Your task to perform on an android device: Go to network settings Image 0: 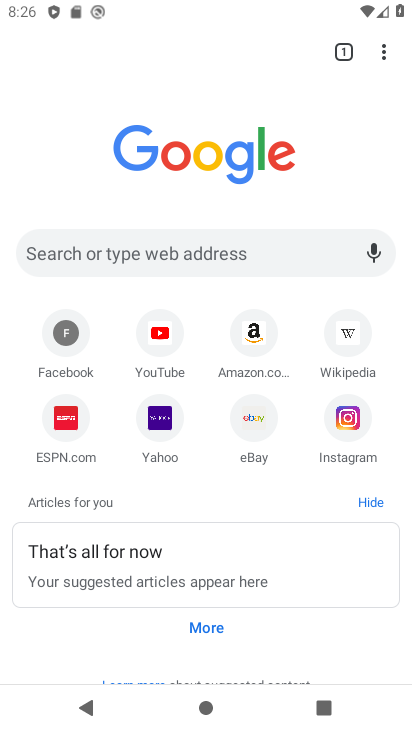
Step 0: press home button
Your task to perform on an android device: Go to network settings Image 1: 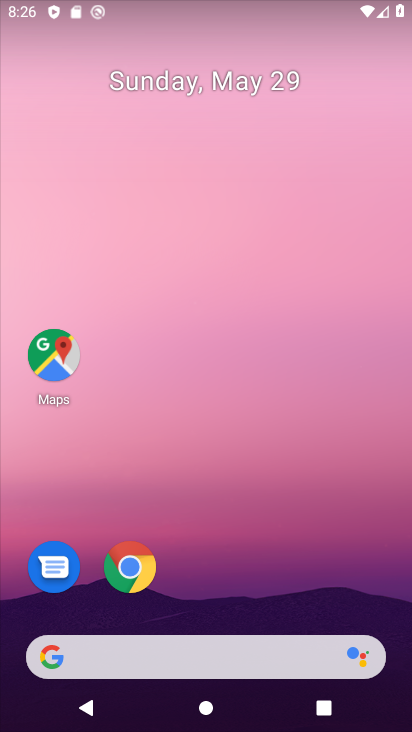
Step 1: drag from (366, 598) to (299, 130)
Your task to perform on an android device: Go to network settings Image 2: 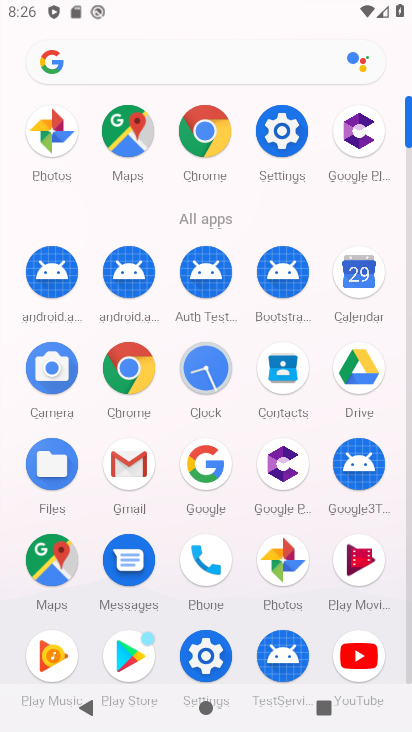
Step 2: click (207, 658)
Your task to perform on an android device: Go to network settings Image 3: 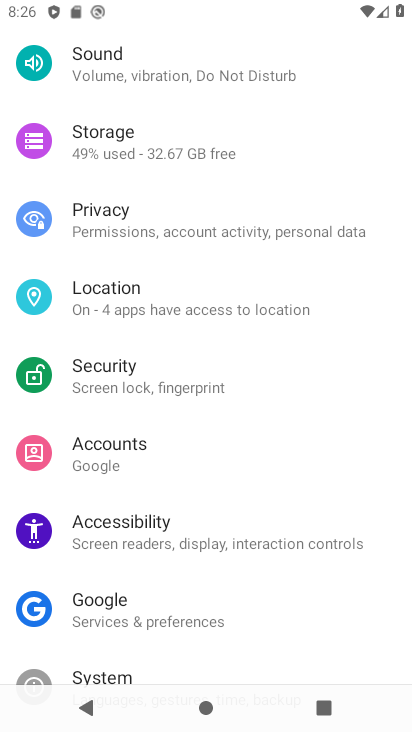
Step 3: drag from (225, 259) to (212, 465)
Your task to perform on an android device: Go to network settings Image 4: 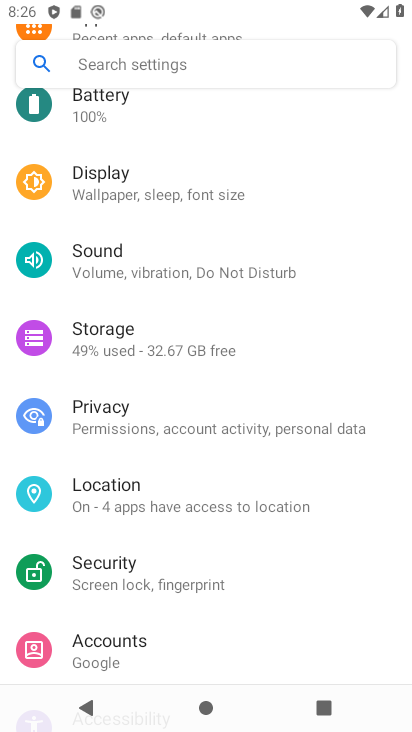
Step 4: drag from (277, 85) to (261, 229)
Your task to perform on an android device: Go to network settings Image 5: 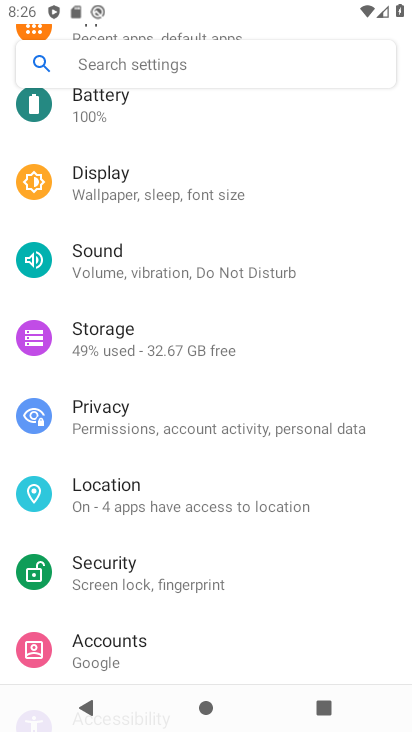
Step 5: drag from (218, 273) to (213, 326)
Your task to perform on an android device: Go to network settings Image 6: 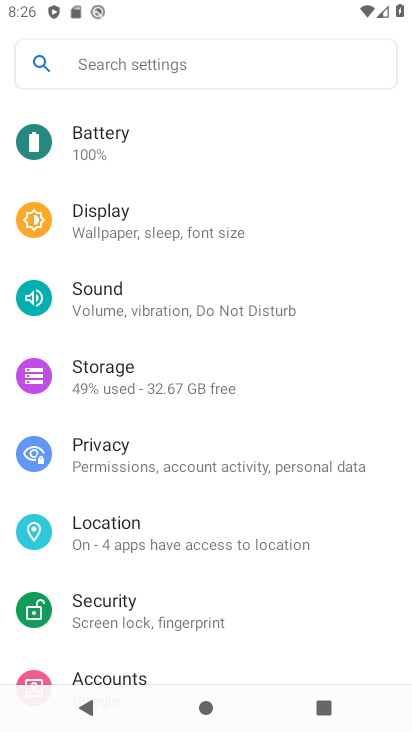
Step 6: drag from (316, 171) to (291, 417)
Your task to perform on an android device: Go to network settings Image 7: 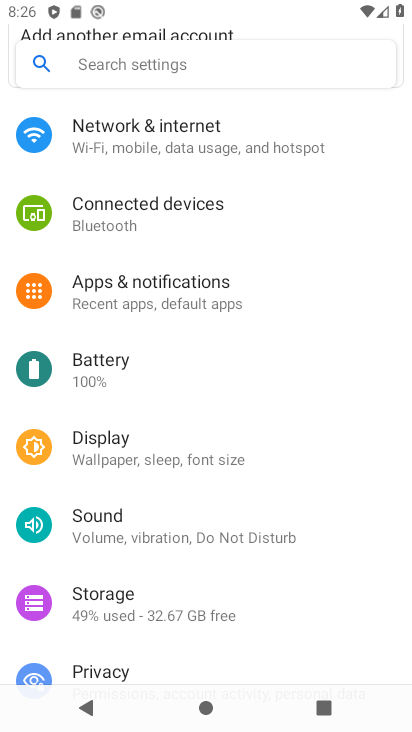
Step 7: click (126, 121)
Your task to perform on an android device: Go to network settings Image 8: 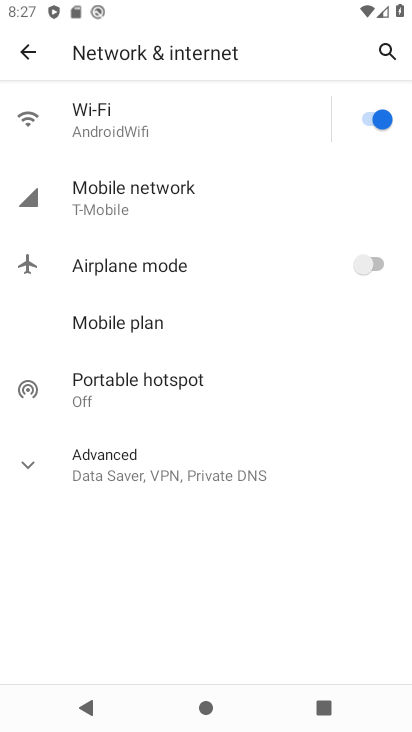
Step 8: click (104, 197)
Your task to perform on an android device: Go to network settings Image 9: 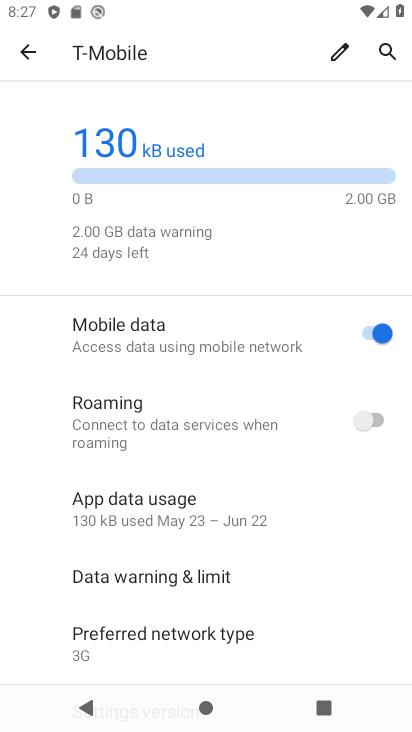
Step 9: task complete